Your task to perform on an android device: See recent photos Image 0: 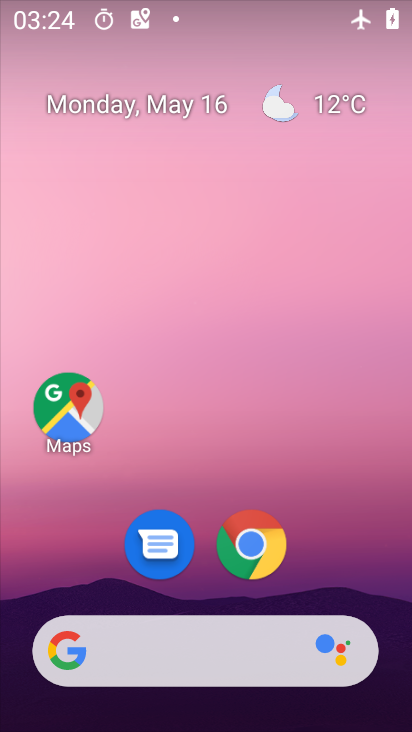
Step 0: drag from (196, 717) to (204, 409)
Your task to perform on an android device: See recent photos Image 1: 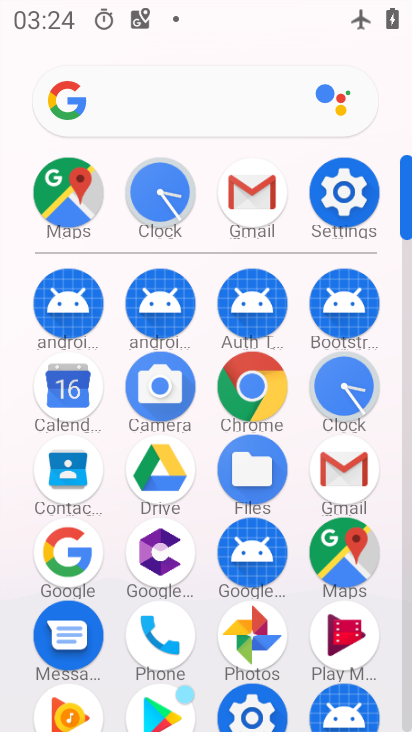
Step 1: click (256, 628)
Your task to perform on an android device: See recent photos Image 2: 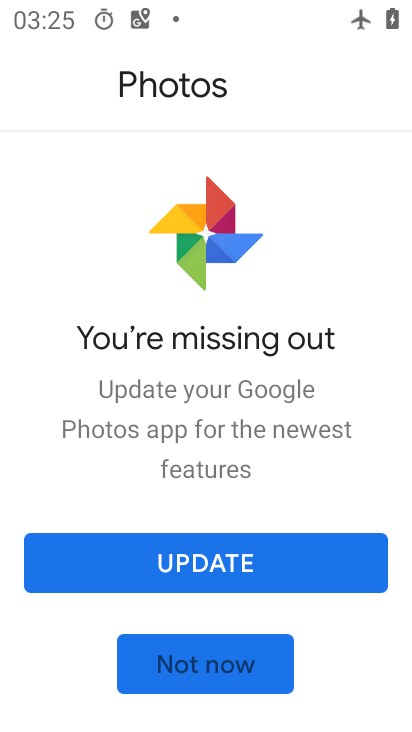
Step 2: task complete